Your task to perform on an android device: toggle notification dots Image 0: 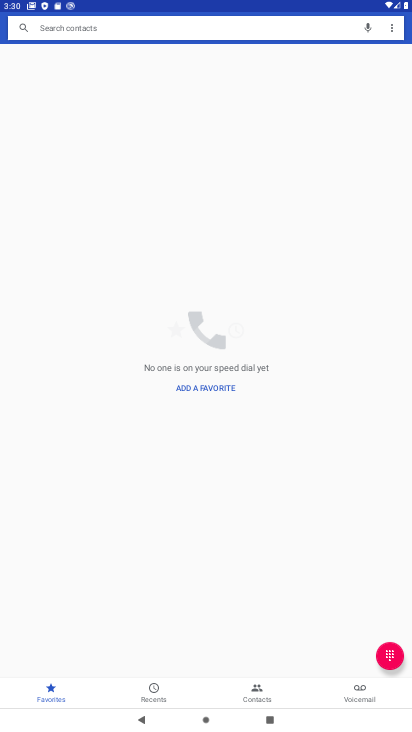
Step 0: drag from (304, 566) to (209, 68)
Your task to perform on an android device: toggle notification dots Image 1: 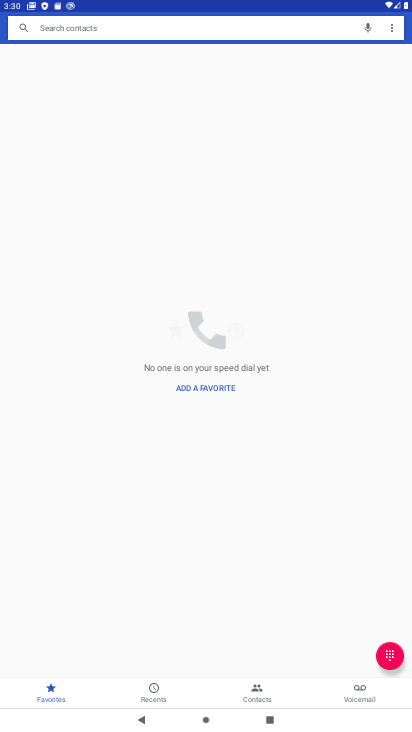
Step 1: press home button
Your task to perform on an android device: toggle notification dots Image 2: 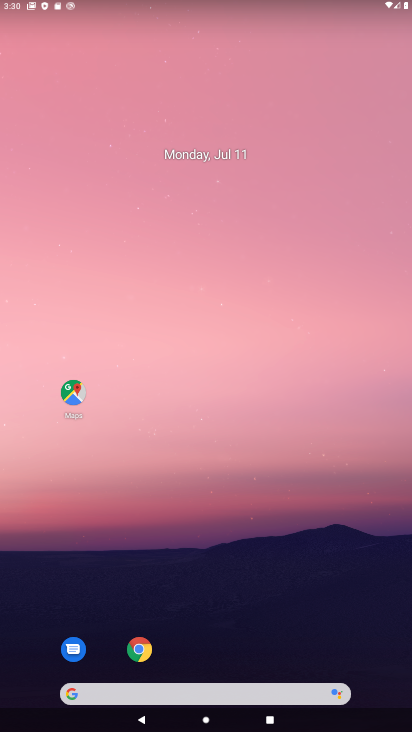
Step 2: drag from (295, 520) to (239, 11)
Your task to perform on an android device: toggle notification dots Image 3: 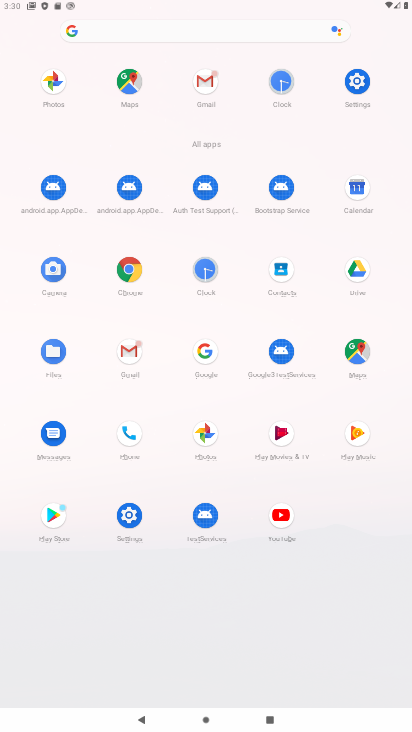
Step 3: click (127, 515)
Your task to perform on an android device: toggle notification dots Image 4: 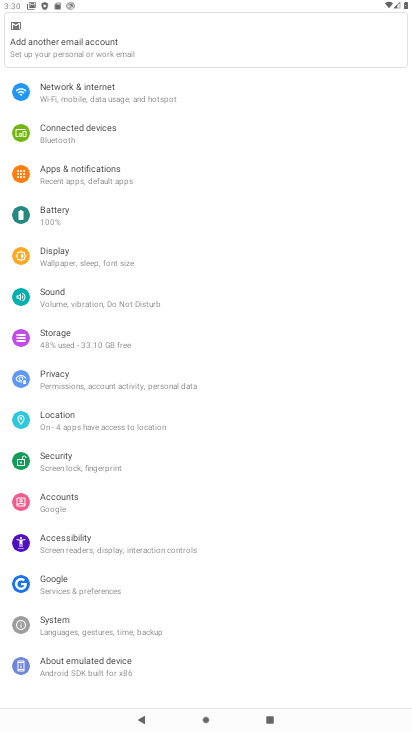
Step 4: click (118, 164)
Your task to perform on an android device: toggle notification dots Image 5: 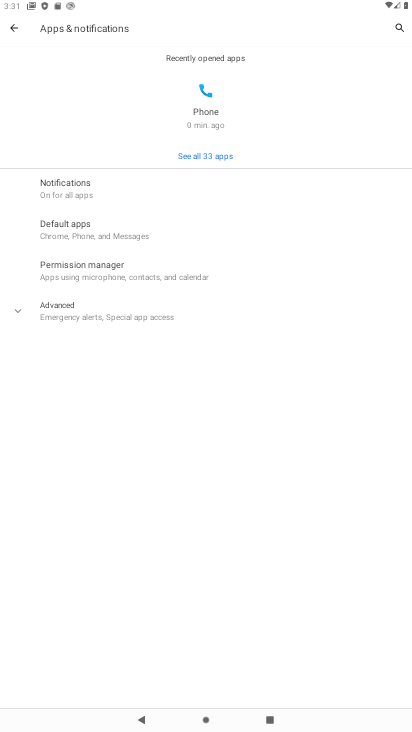
Step 5: click (61, 316)
Your task to perform on an android device: toggle notification dots Image 6: 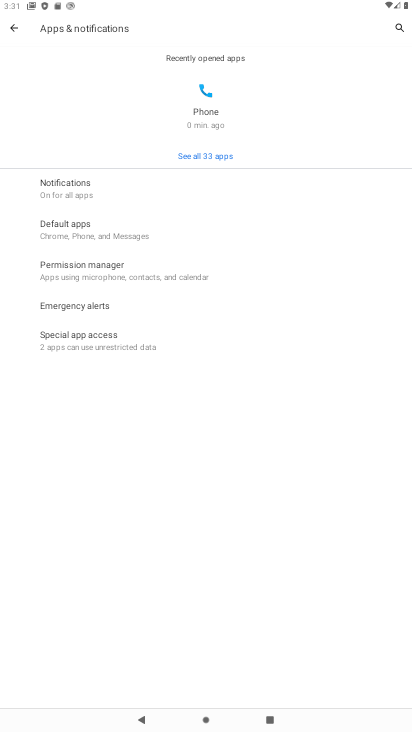
Step 6: click (71, 171)
Your task to perform on an android device: toggle notification dots Image 7: 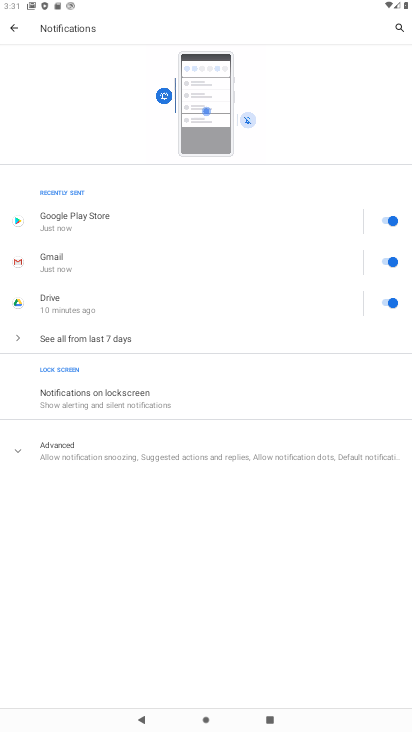
Step 7: click (111, 447)
Your task to perform on an android device: toggle notification dots Image 8: 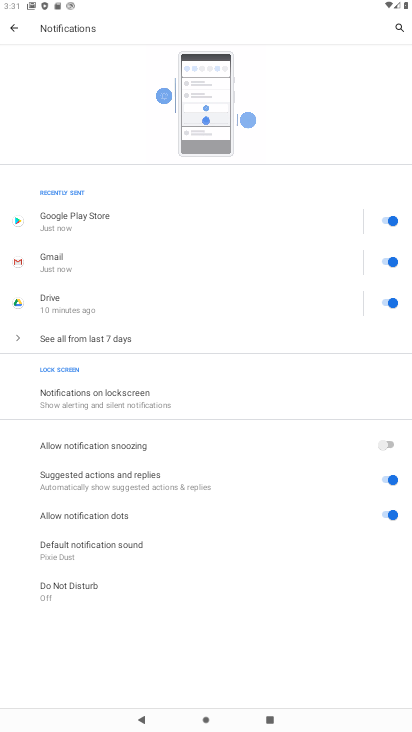
Step 8: click (136, 514)
Your task to perform on an android device: toggle notification dots Image 9: 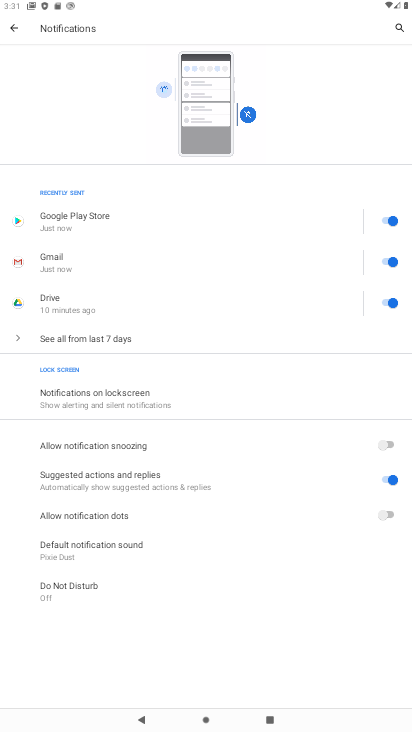
Step 9: task complete